Your task to perform on an android device: toggle pop-ups in chrome Image 0: 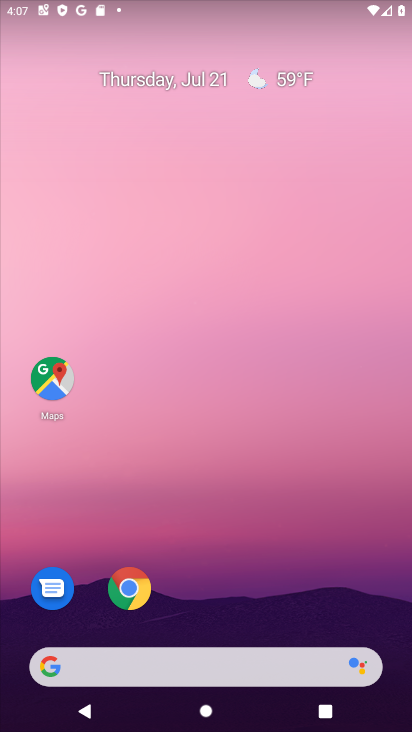
Step 0: click (124, 592)
Your task to perform on an android device: toggle pop-ups in chrome Image 1: 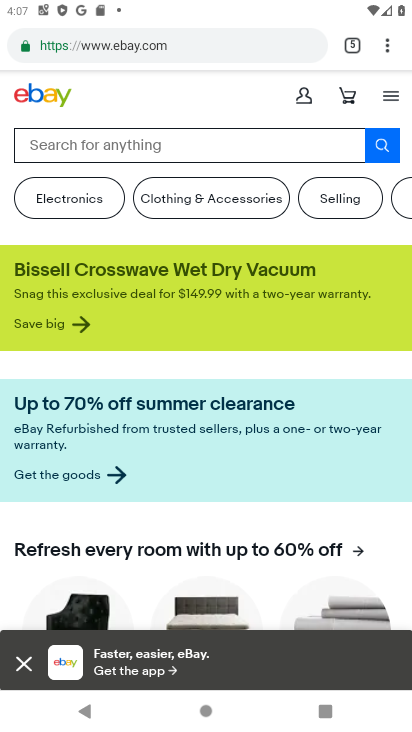
Step 1: click (385, 42)
Your task to perform on an android device: toggle pop-ups in chrome Image 2: 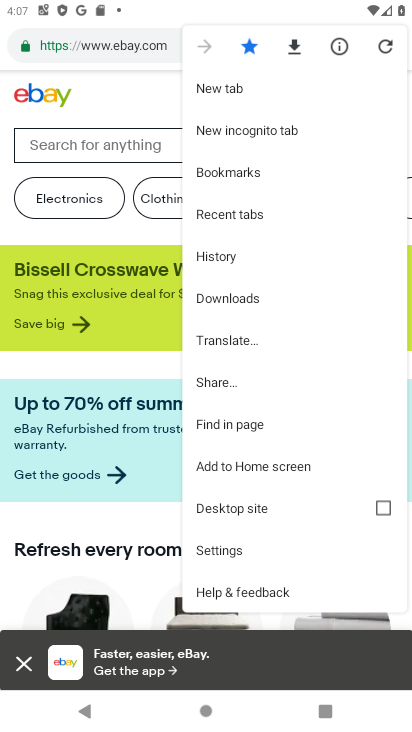
Step 2: click (226, 546)
Your task to perform on an android device: toggle pop-ups in chrome Image 3: 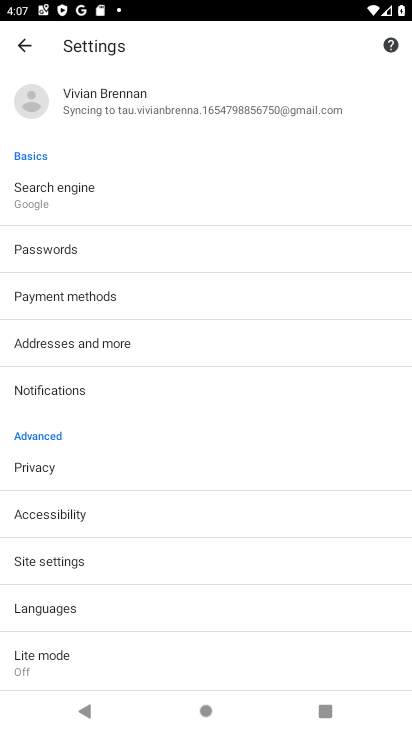
Step 3: click (69, 561)
Your task to perform on an android device: toggle pop-ups in chrome Image 4: 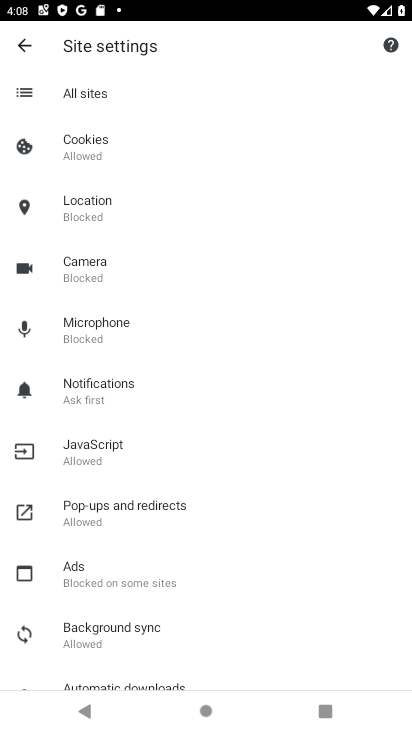
Step 4: click (85, 515)
Your task to perform on an android device: toggle pop-ups in chrome Image 5: 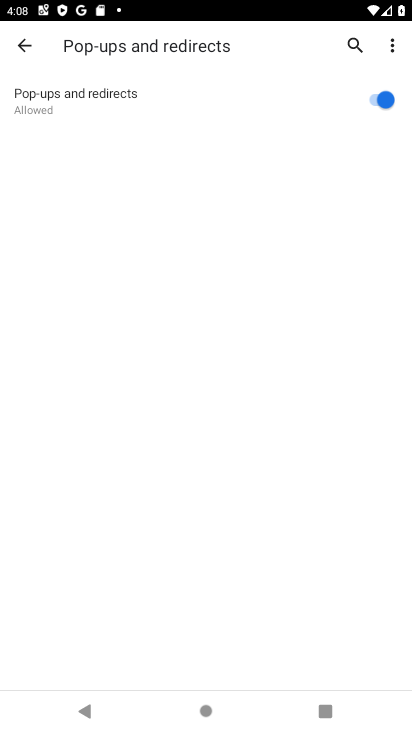
Step 5: click (383, 94)
Your task to perform on an android device: toggle pop-ups in chrome Image 6: 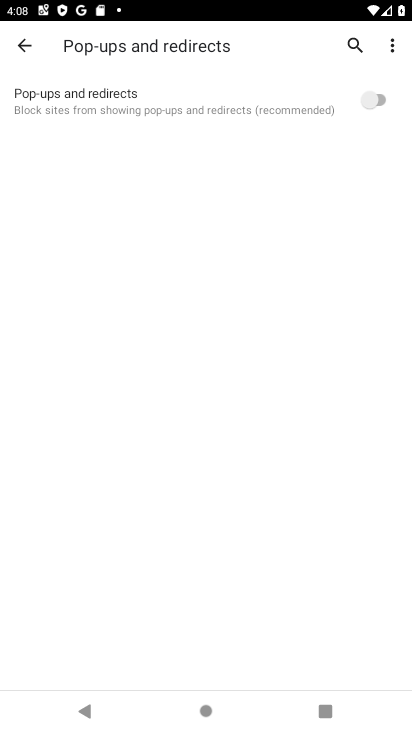
Step 6: task complete